Your task to perform on an android device: change notifications settings Image 0: 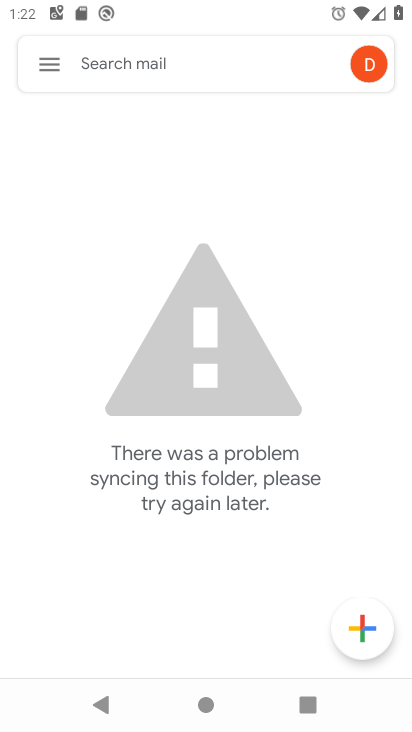
Step 0: press home button
Your task to perform on an android device: change notifications settings Image 1: 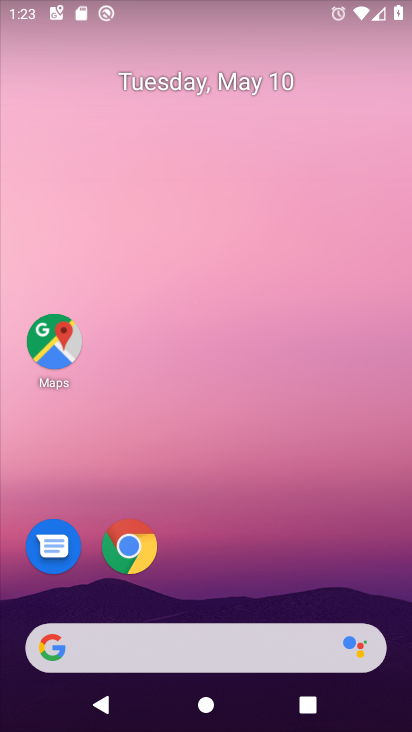
Step 1: drag from (277, 606) to (311, 146)
Your task to perform on an android device: change notifications settings Image 2: 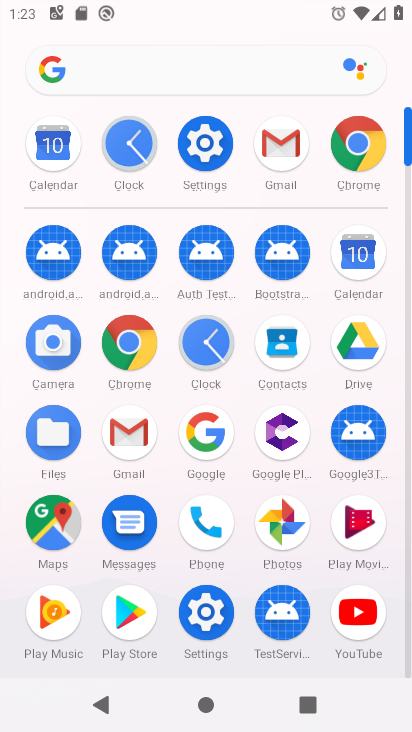
Step 2: click (183, 624)
Your task to perform on an android device: change notifications settings Image 3: 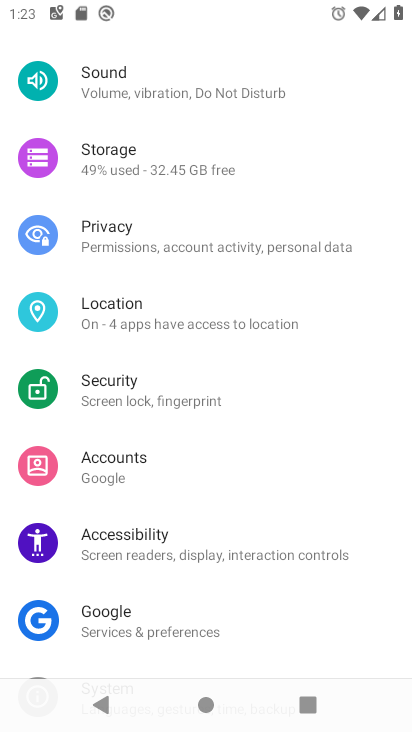
Step 3: drag from (164, 124) to (212, 716)
Your task to perform on an android device: change notifications settings Image 4: 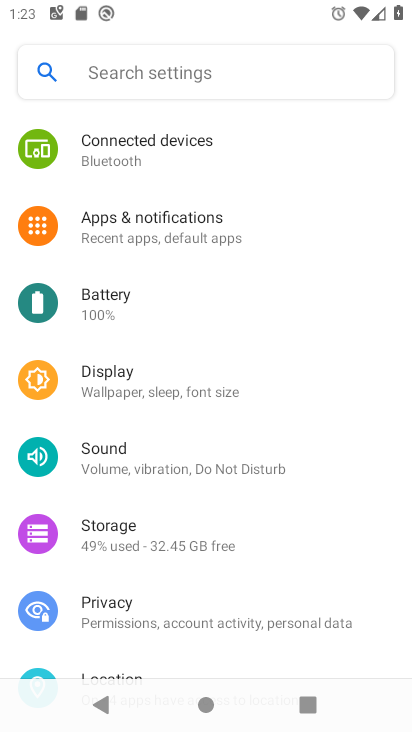
Step 4: click (123, 236)
Your task to perform on an android device: change notifications settings Image 5: 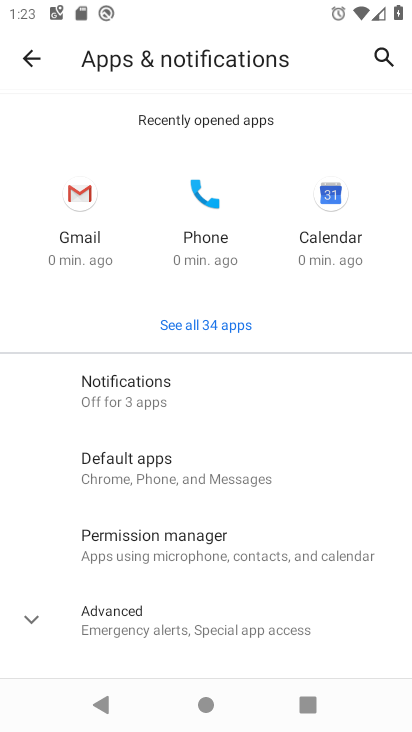
Step 5: click (165, 411)
Your task to perform on an android device: change notifications settings Image 6: 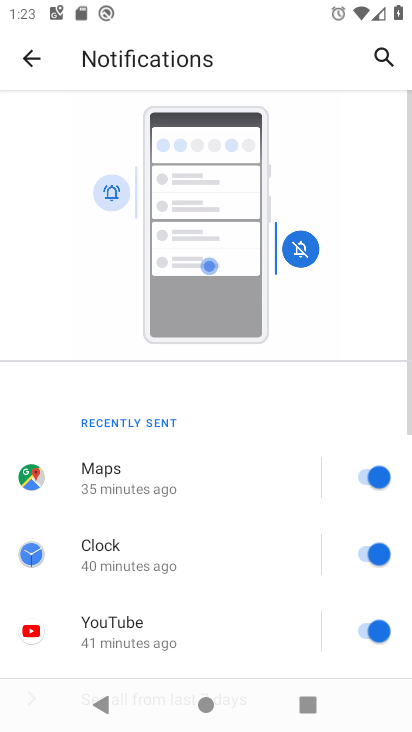
Step 6: drag from (276, 597) to (265, 306)
Your task to perform on an android device: change notifications settings Image 7: 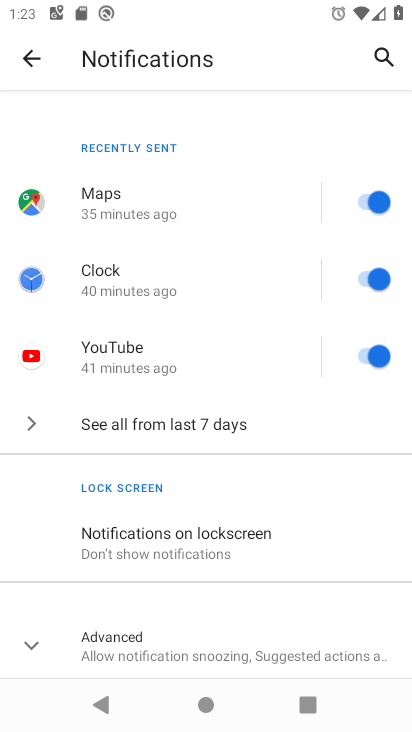
Step 7: click (313, 361)
Your task to perform on an android device: change notifications settings Image 8: 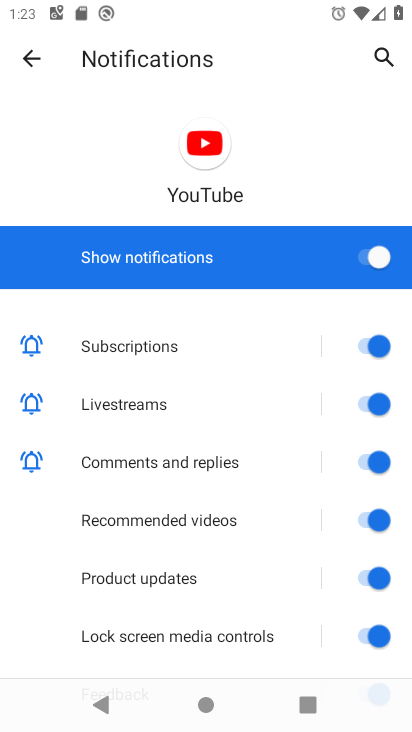
Step 8: click (47, 45)
Your task to perform on an android device: change notifications settings Image 9: 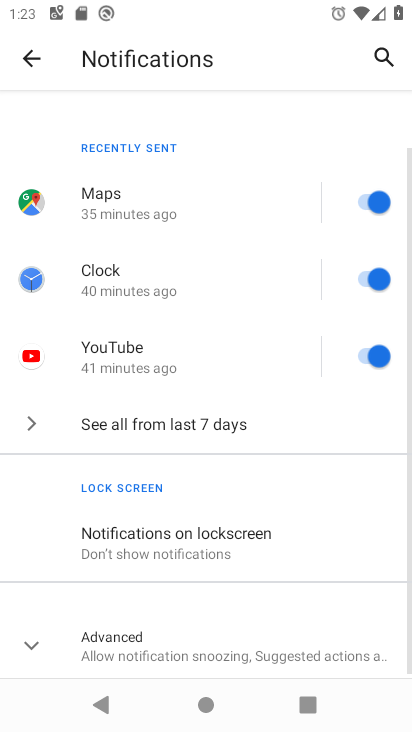
Step 9: click (377, 272)
Your task to perform on an android device: change notifications settings Image 10: 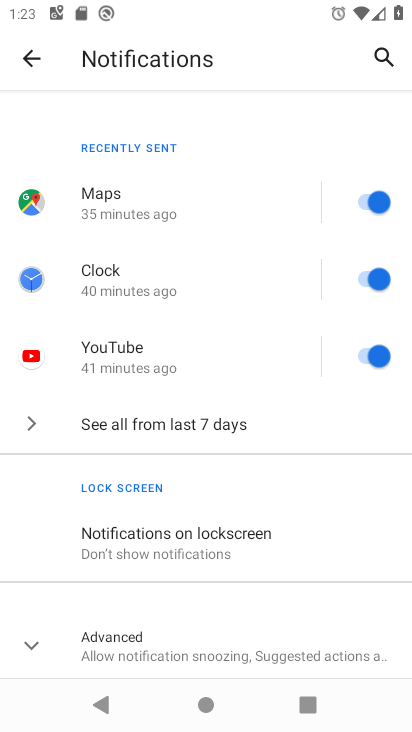
Step 10: click (164, 643)
Your task to perform on an android device: change notifications settings Image 11: 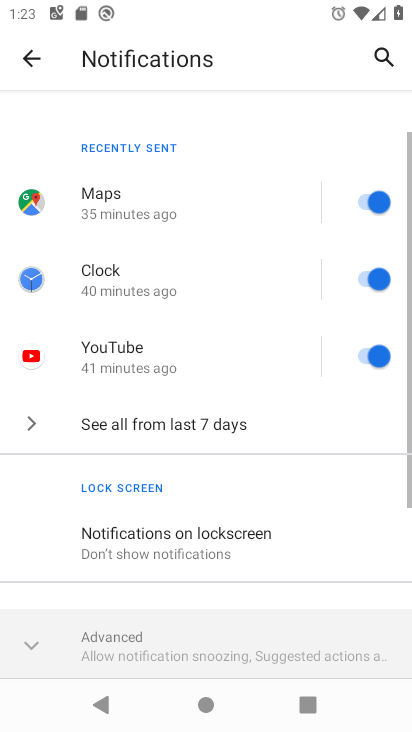
Step 11: drag from (166, 621) to (172, 256)
Your task to perform on an android device: change notifications settings Image 12: 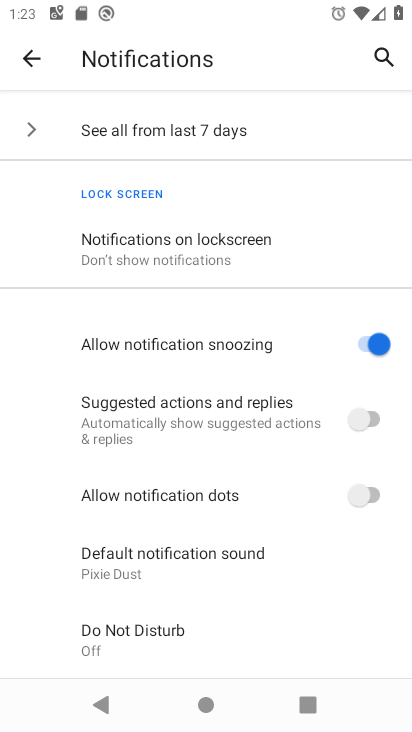
Step 12: click (375, 419)
Your task to perform on an android device: change notifications settings Image 13: 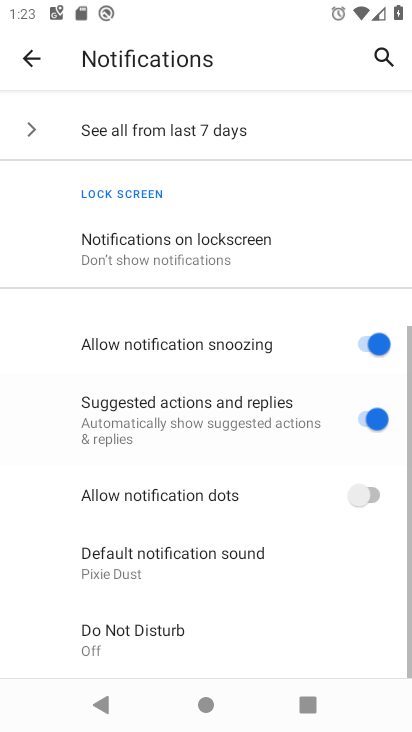
Step 13: click (366, 471)
Your task to perform on an android device: change notifications settings Image 14: 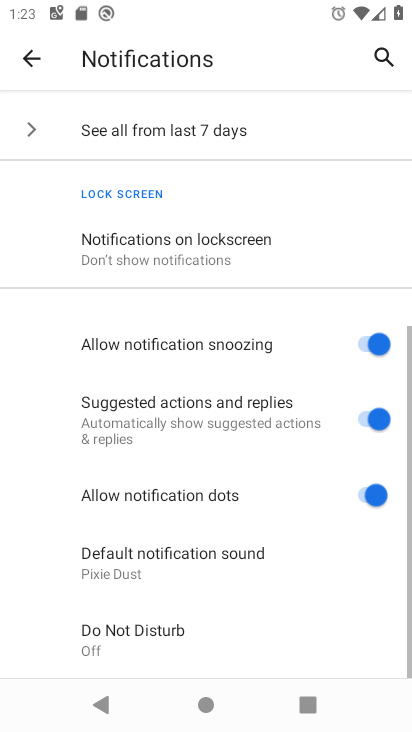
Step 14: click (372, 349)
Your task to perform on an android device: change notifications settings Image 15: 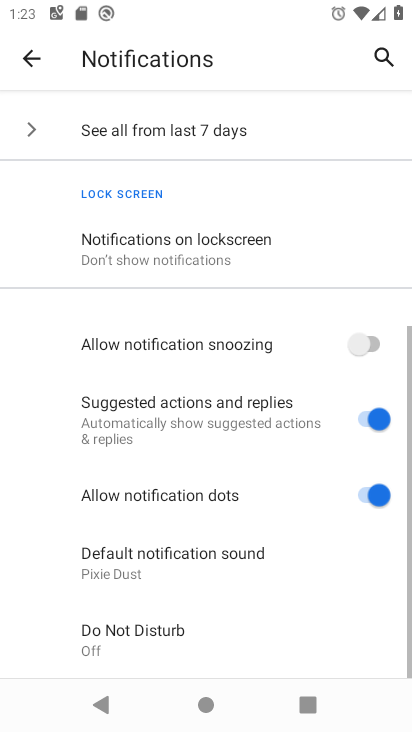
Step 15: task complete